Your task to perform on an android device: install app "WhatsApp Messenger" Image 0: 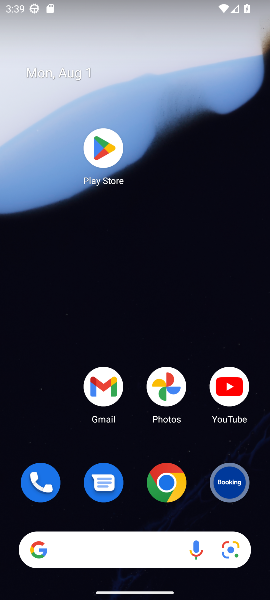
Step 0: press home button
Your task to perform on an android device: install app "WhatsApp Messenger" Image 1: 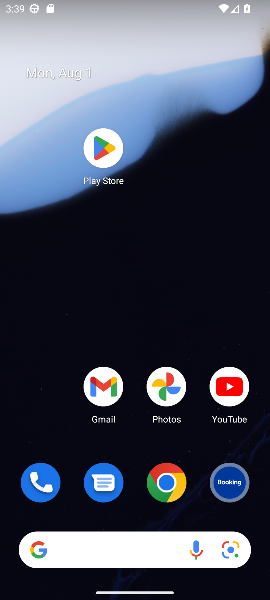
Step 1: click (104, 151)
Your task to perform on an android device: install app "WhatsApp Messenger" Image 2: 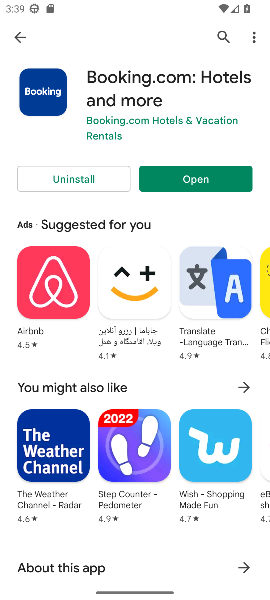
Step 2: click (216, 35)
Your task to perform on an android device: install app "WhatsApp Messenger" Image 3: 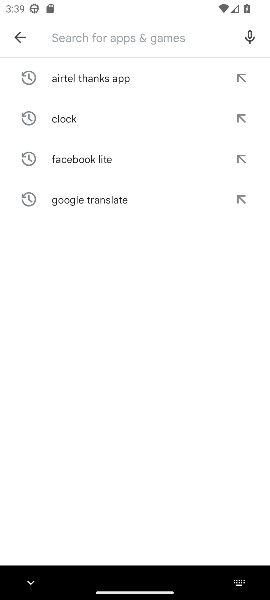
Step 3: type "WhatsApp Messenger"
Your task to perform on an android device: install app "WhatsApp Messenger" Image 4: 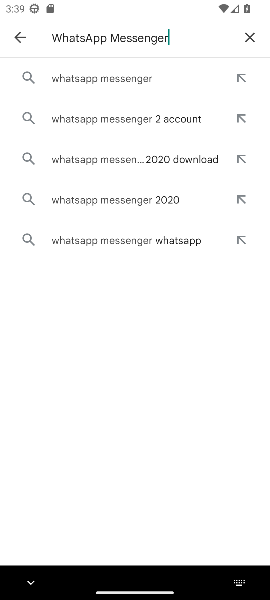
Step 4: click (132, 75)
Your task to perform on an android device: install app "WhatsApp Messenger" Image 5: 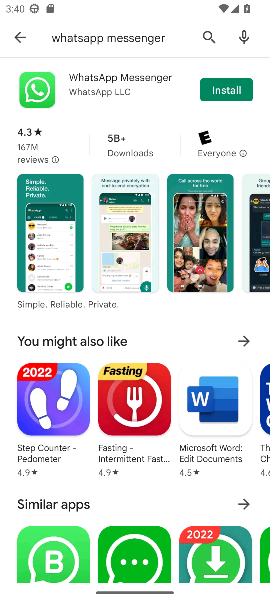
Step 5: click (220, 88)
Your task to perform on an android device: install app "WhatsApp Messenger" Image 6: 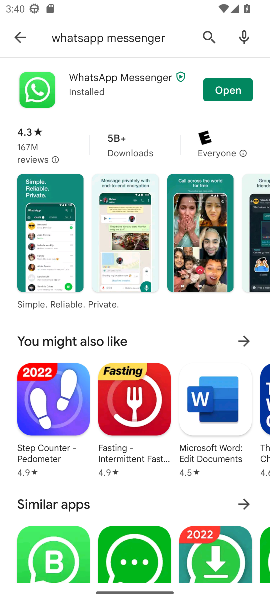
Step 6: task complete